Your task to perform on an android device: change the clock style Image 0: 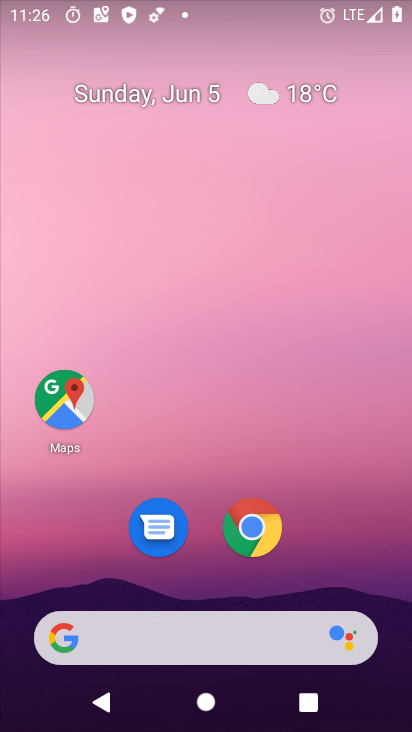
Step 0: drag from (344, 572) to (232, 6)
Your task to perform on an android device: change the clock style Image 1: 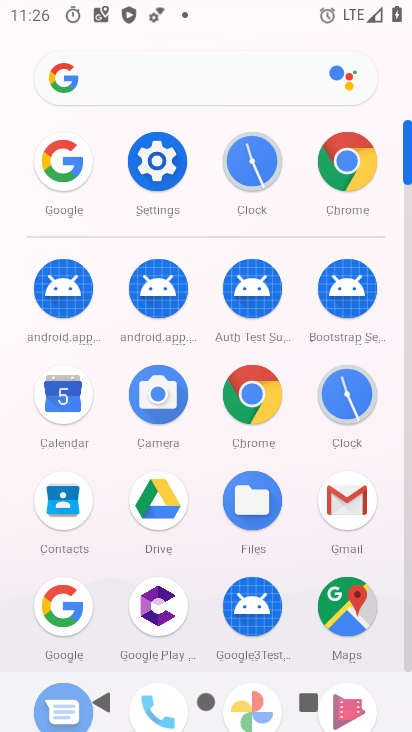
Step 1: click (347, 393)
Your task to perform on an android device: change the clock style Image 2: 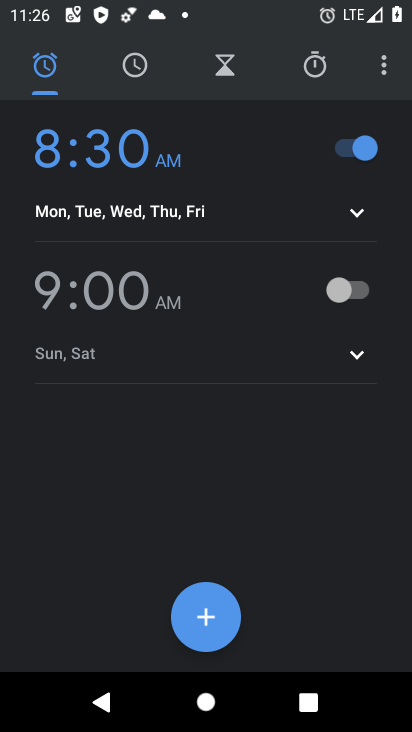
Step 2: click (383, 59)
Your task to perform on an android device: change the clock style Image 3: 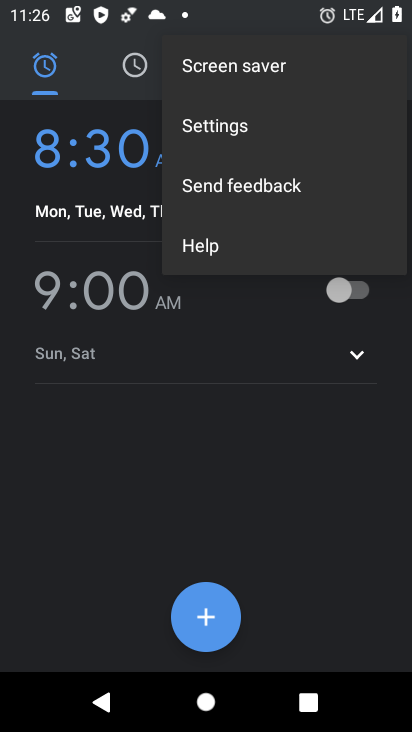
Step 3: click (217, 128)
Your task to perform on an android device: change the clock style Image 4: 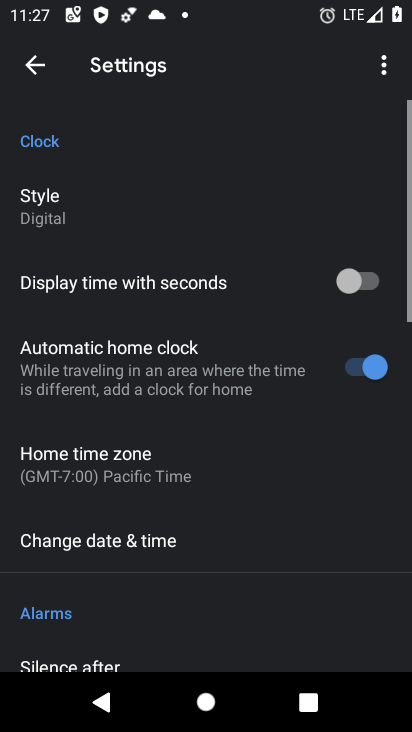
Step 4: click (111, 199)
Your task to perform on an android device: change the clock style Image 5: 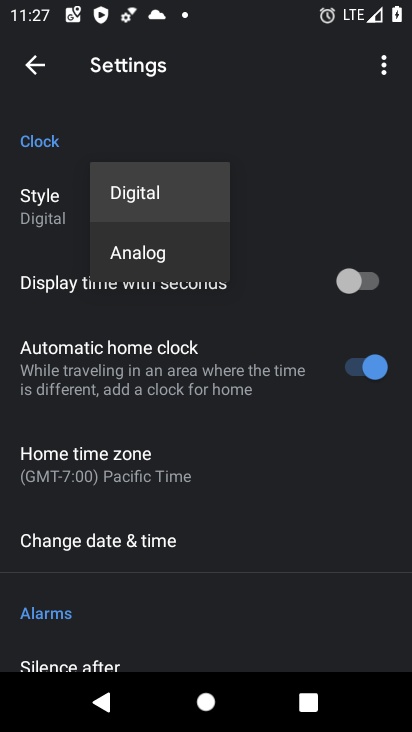
Step 5: click (159, 248)
Your task to perform on an android device: change the clock style Image 6: 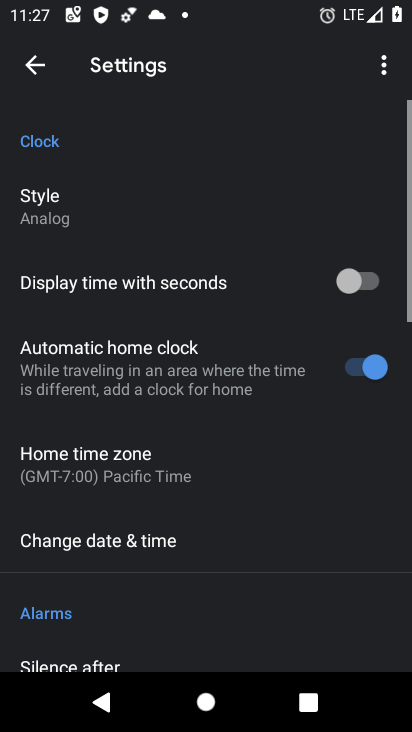
Step 6: task complete